Your task to perform on an android device: toggle data saver in the chrome app Image 0: 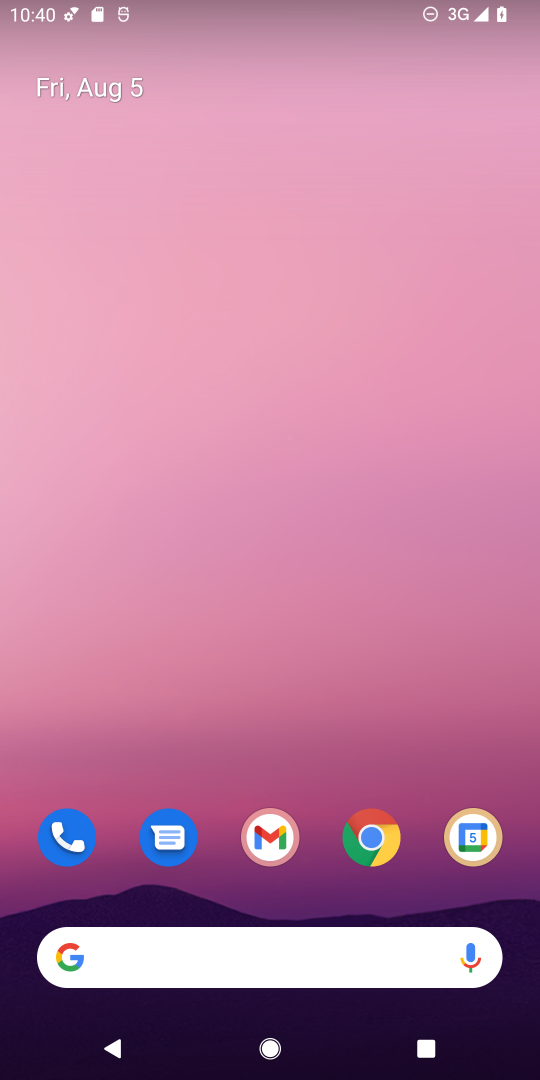
Step 0: click (383, 840)
Your task to perform on an android device: toggle data saver in the chrome app Image 1: 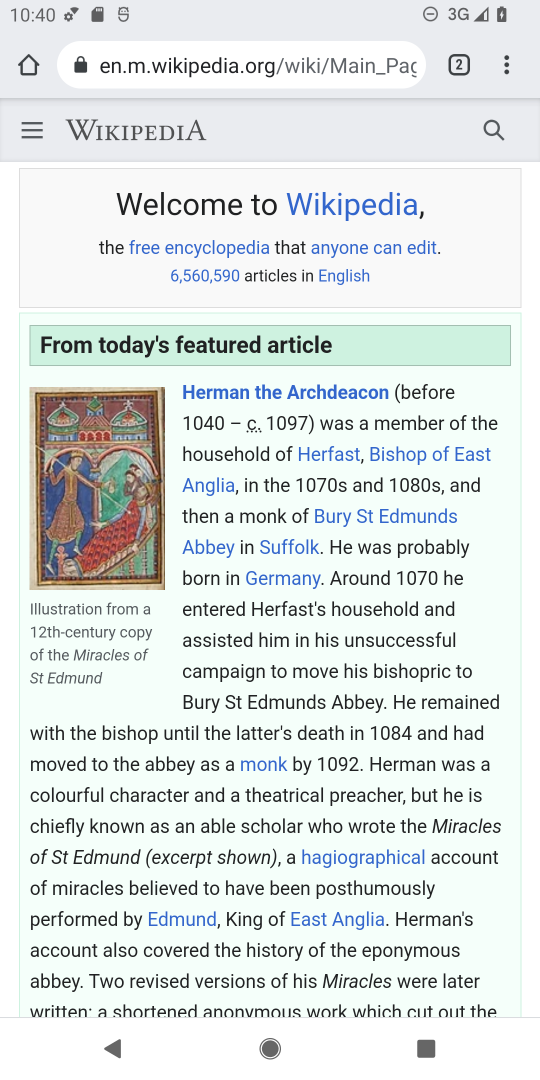
Step 1: click (508, 67)
Your task to perform on an android device: toggle data saver in the chrome app Image 2: 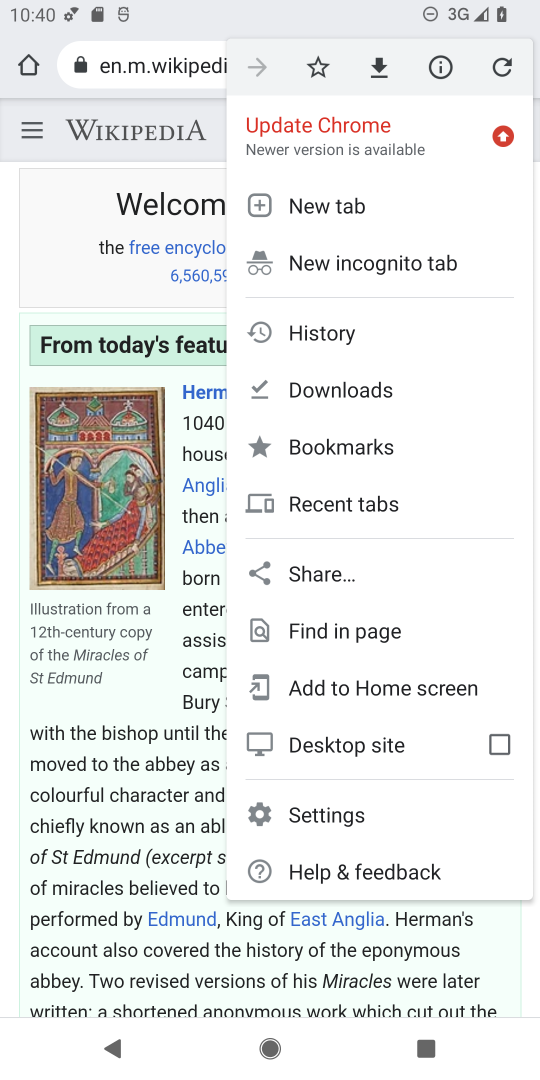
Step 2: click (322, 805)
Your task to perform on an android device: toggle data saver in the chrome app Image 3: 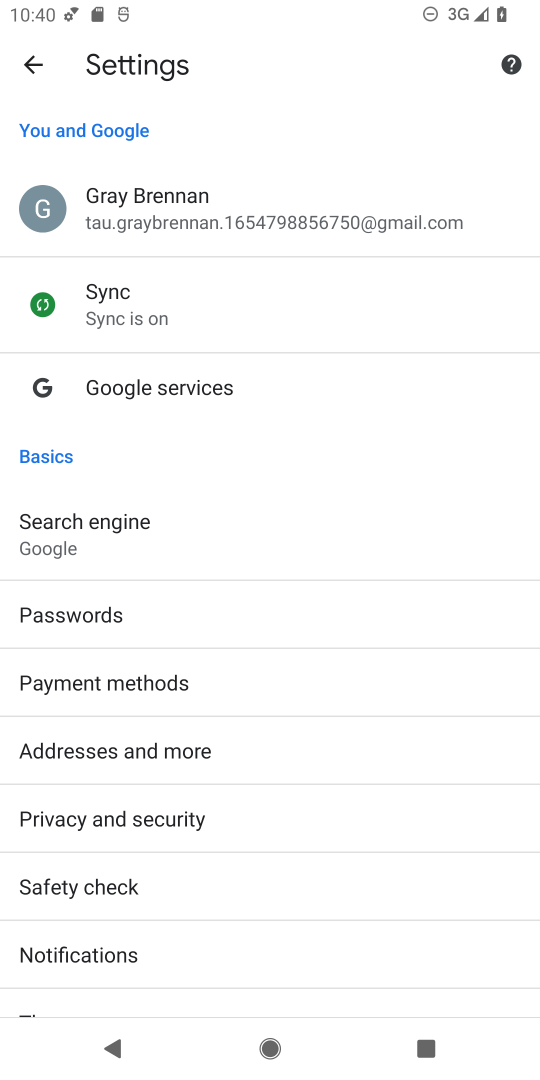
Step 3: drag from (282, 891) to (357, 307)
Your task to perform on an android device: toggle data saver in the chrome app Image 4: 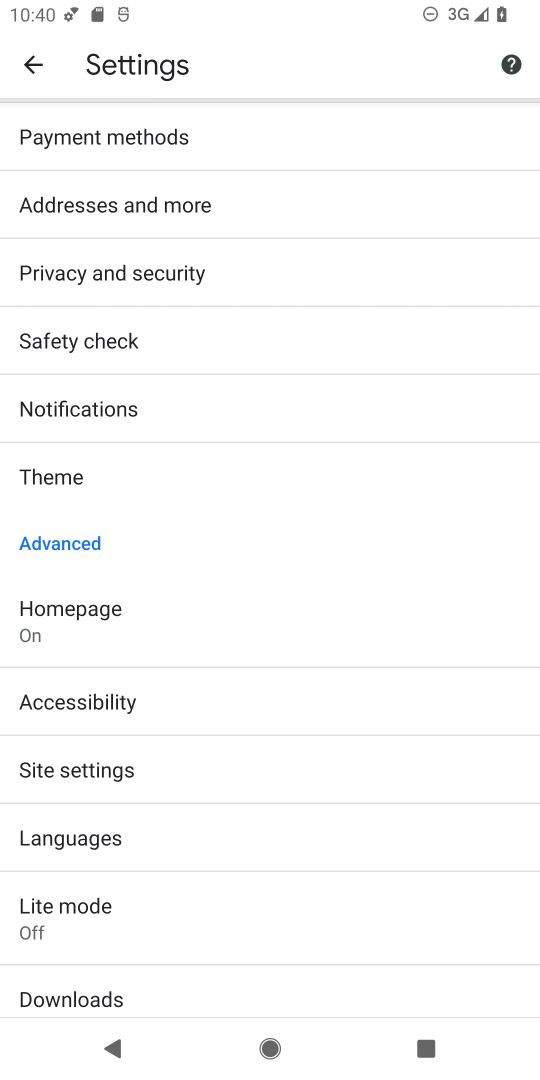
Step 4: click (113, 912)
Your task to perform on an android device: toggle data saver in the chrome app Image 5: 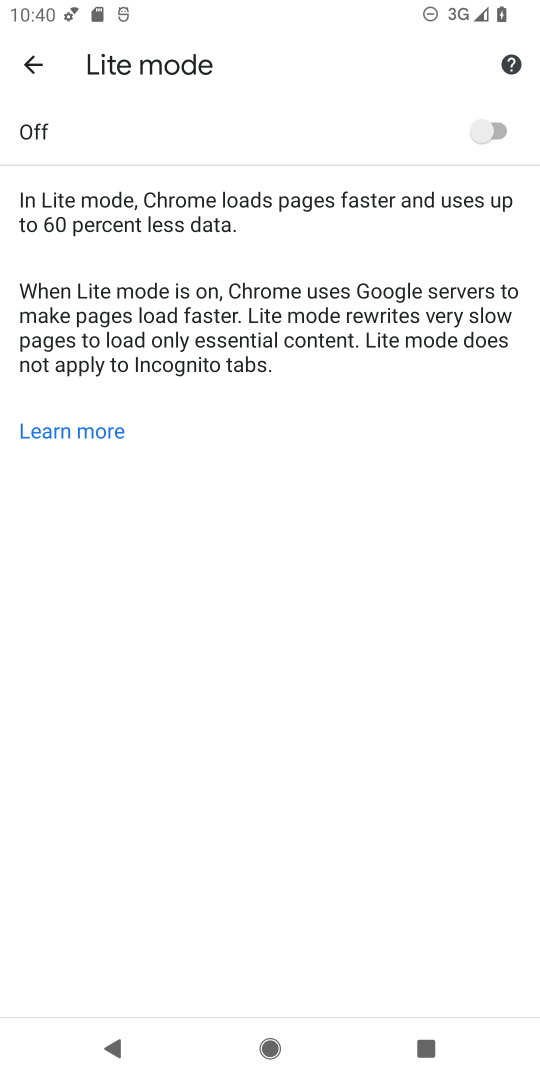
Step 5: click (498, 132)
Your task to perform on an android device: toggle data saver in the chrome app Image 6: 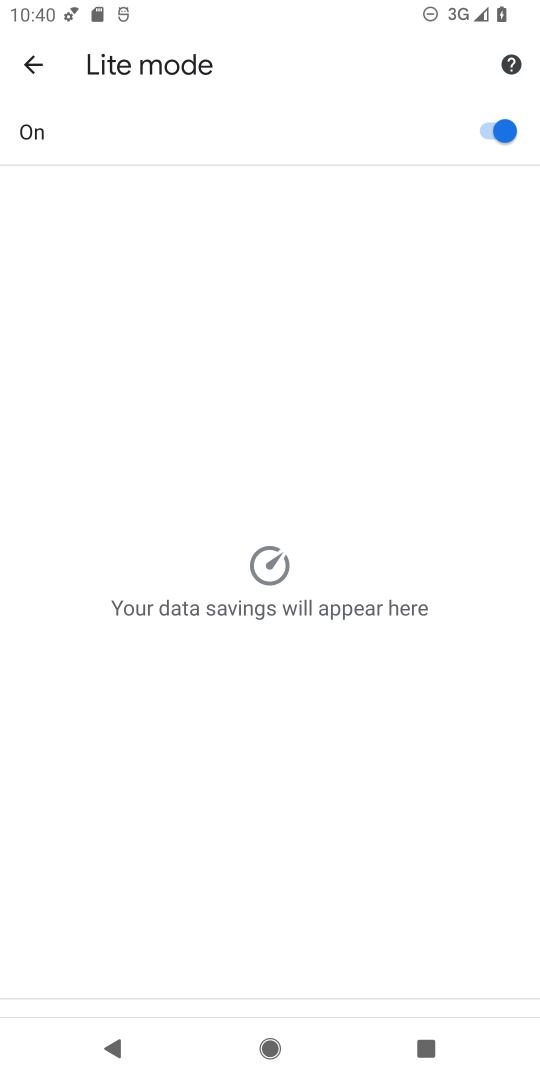
Step 6: task complete